Your task to perform on an android device: Open Google Maps and go to "Timeline" Image 0: 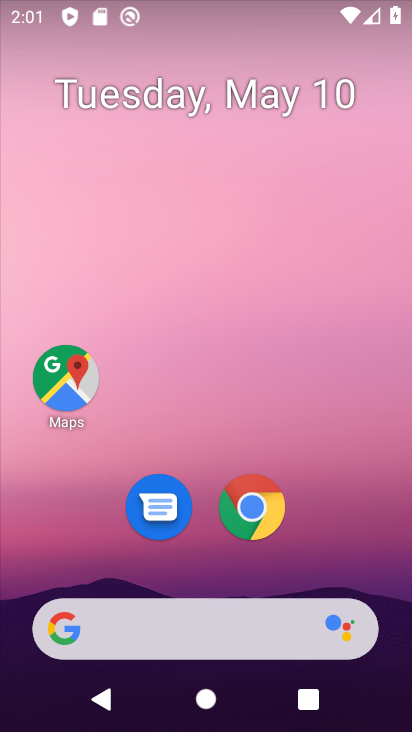
Step 0: drag from (252, 417) to (254, 218)
Your task to perform on an android device: Open Google Maps and go to "Timeline" Image 1: 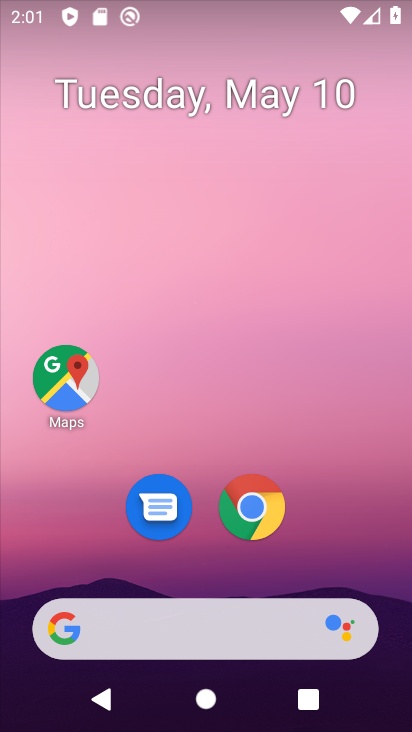
Step 1: click (68, 376)
Your task to perform on an android device: Open Google Maps and go to "Timeline" Image 2: 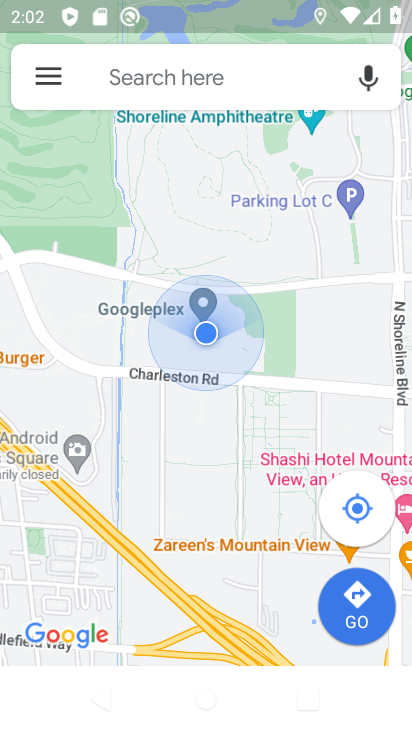
Step 2: click (49, 75)
Your task to perform on an android device: Open Google Maps and go to "Timeline" Image 3: 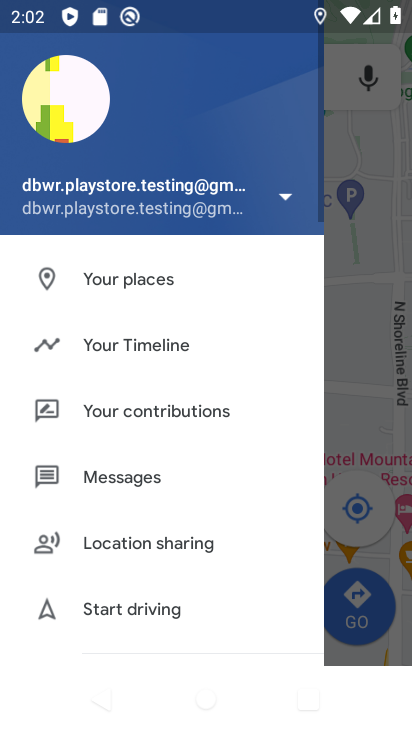
Step 3: click (164, 348)
Your task to perform on an android device: Open Google Maps and go to "Timeline" Image 4: 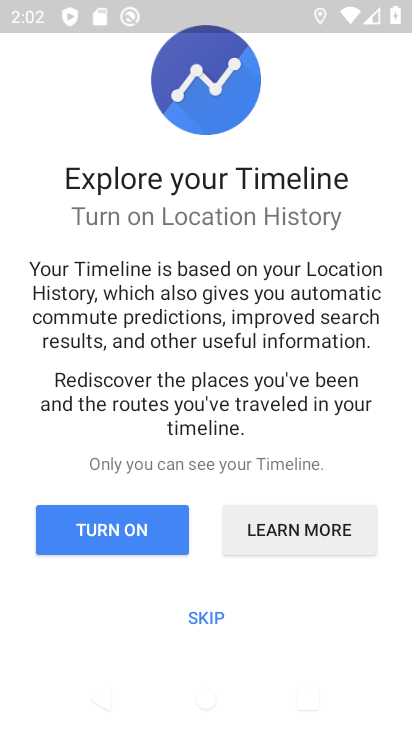
Step 4: click (90, 527)
Your task to perform on an android device: Open Google Maps and go to "Timeline" Image 5: 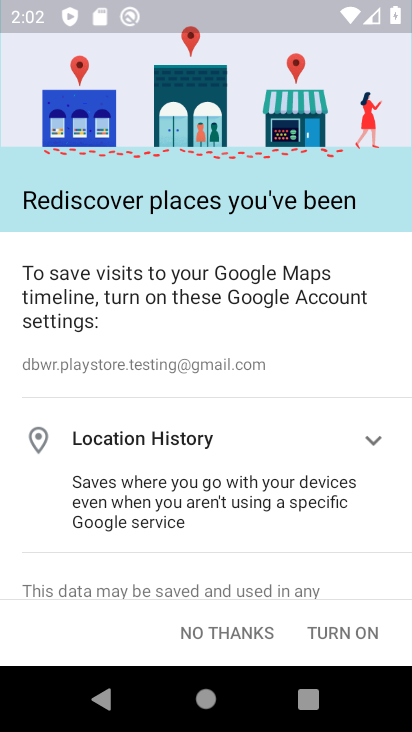
Step 5: click (323, 631)
Your task to perform on an android device: Open Google Maps and go to "Timeline" Image 6: 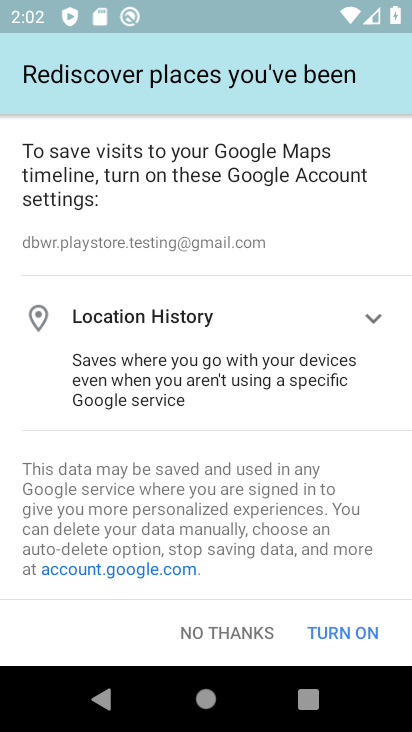
Step 6: drag from (198, 585) to (186, 229)
Your task to perform on an android device: Open Google Maps and go to "Timeline" Image 7: 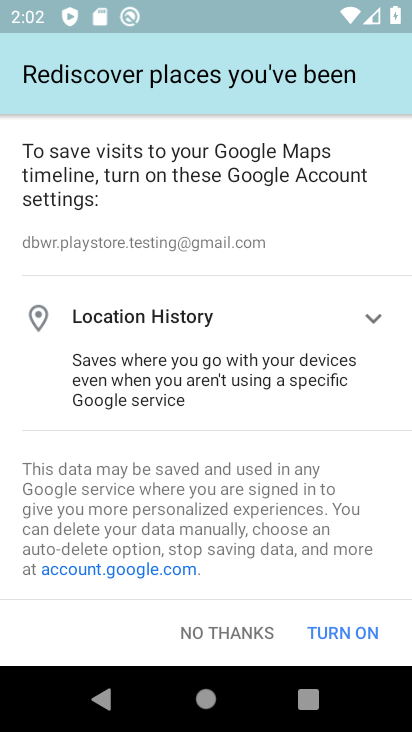
Step 7: drag from (191, 501) to (211, 165)
Your task to perform on an android device: Open Google Maps and go to "Timeline" Image 8: 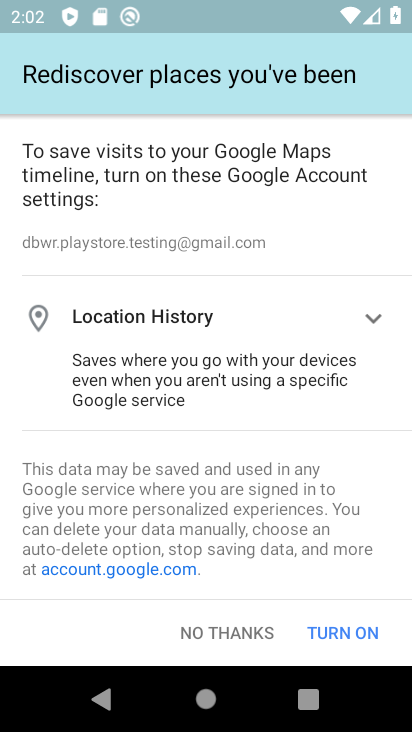
Step 8: click (366, 633)
Your task to perform on an android device: Open Google Maps and go to "Timeline" Image 9: 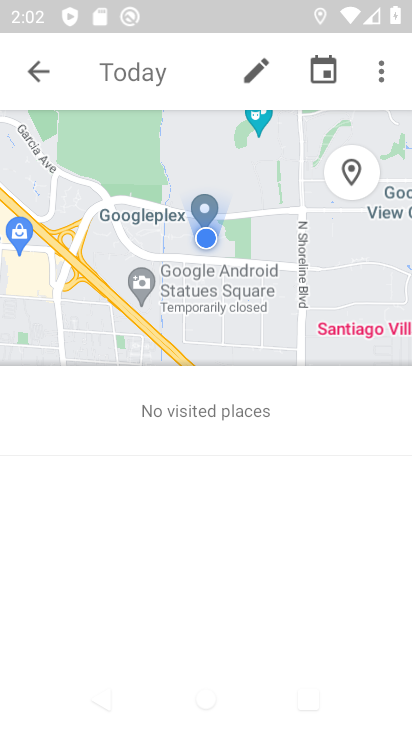
Step 9: task complete